Your task to perform on an android device: open wifi settings Image 0: 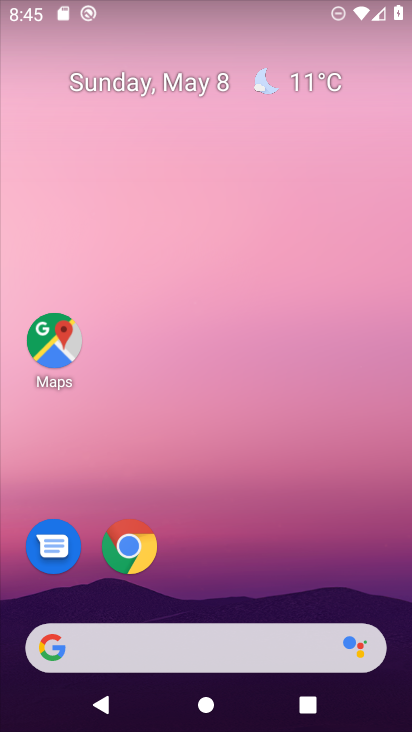
Step 0: drag from (286, 575) to (273, 20)
Your task to perform on an android device: open wifi settings Image 1: 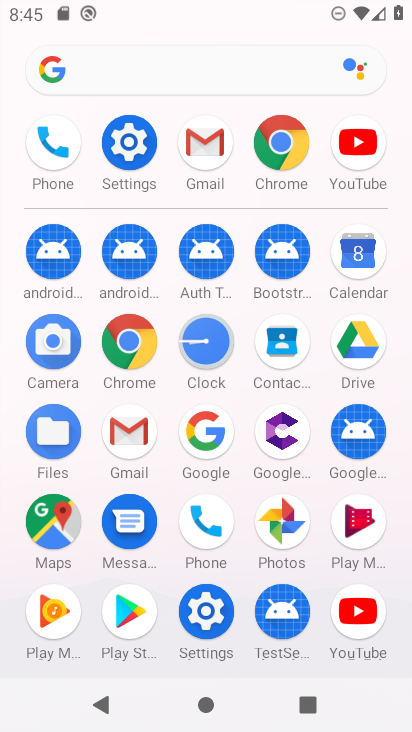
Step 1: click (140, 131)
Your task to perform on an android device: open wifi settings Image 2: 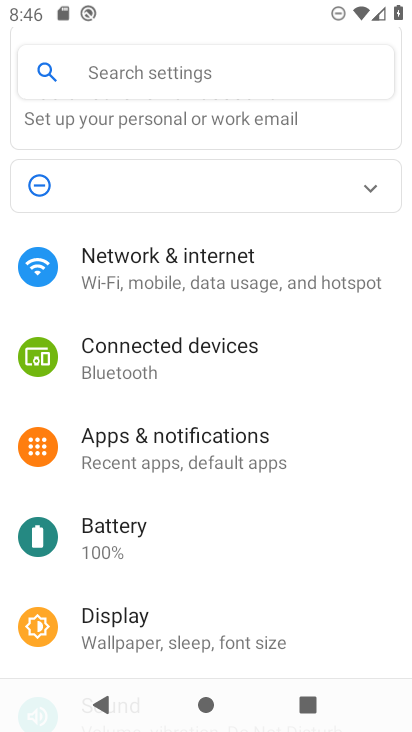
Step 2: click (201, 267)
Your task to perform on an android device: open wifi settings Image 3: 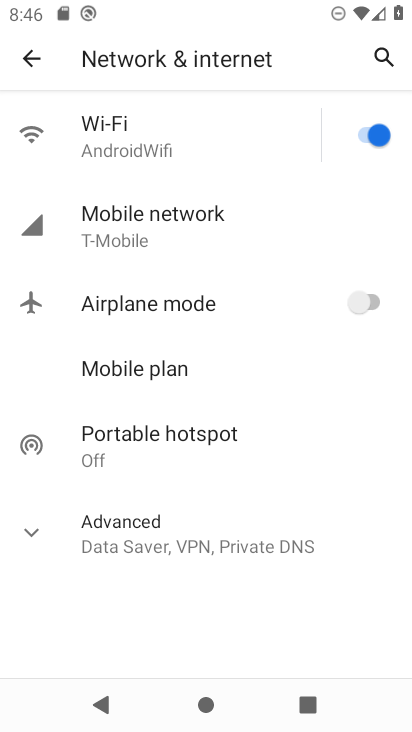
Step 3: click (164, 124)
Your task to perform on an android device: open wifi settings Image 4: 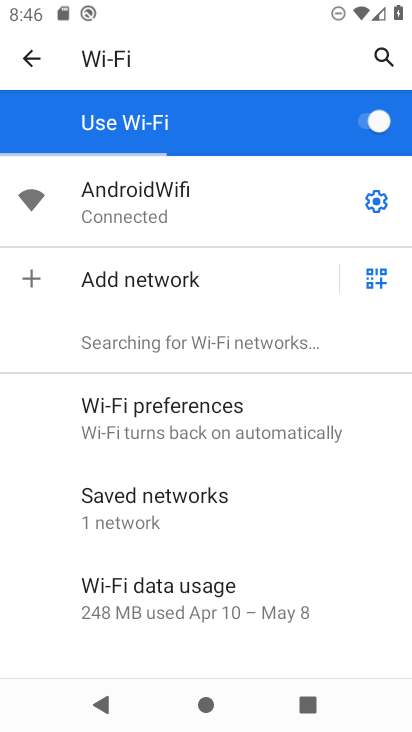
Step 4: task complete